Your task to perform on an android device: Go to sound settings Image 0: 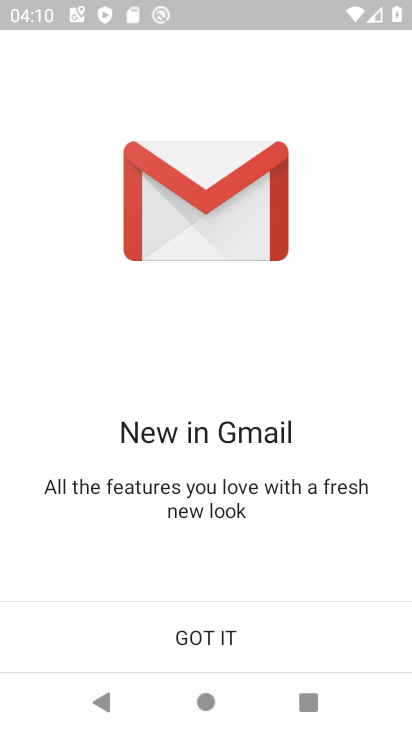
Step 0: press home button
Your task to perform on an android device: Go to sound settings Image 1: 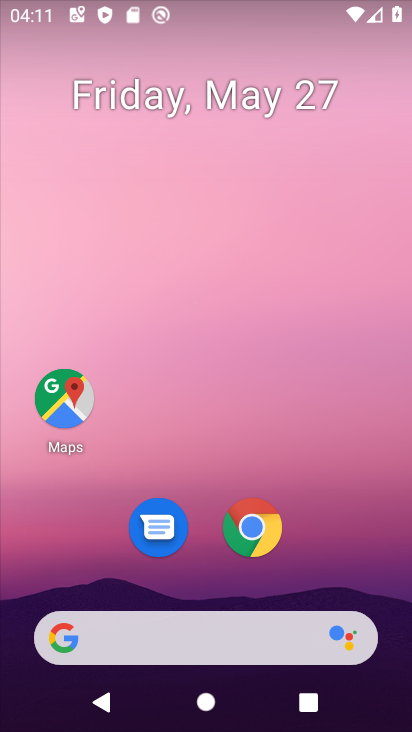
Step 1: drag from (319, 587) to (334, 105)
Your task to perform on an android device: Go to sound settings Image 2: 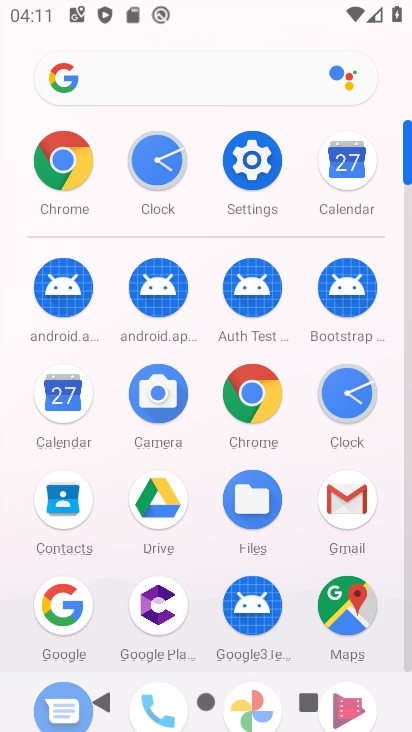
Step 2: click (251, 142)
Your task to perform on an android device: Go to sound settings Image 3: 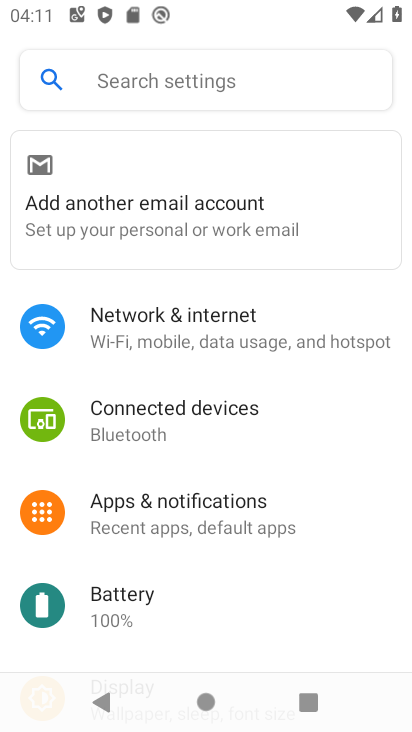
Step 3: drag from (226, 602) to (246, 175)
Your task to perform on an android device: Go to sound settings Image 4: 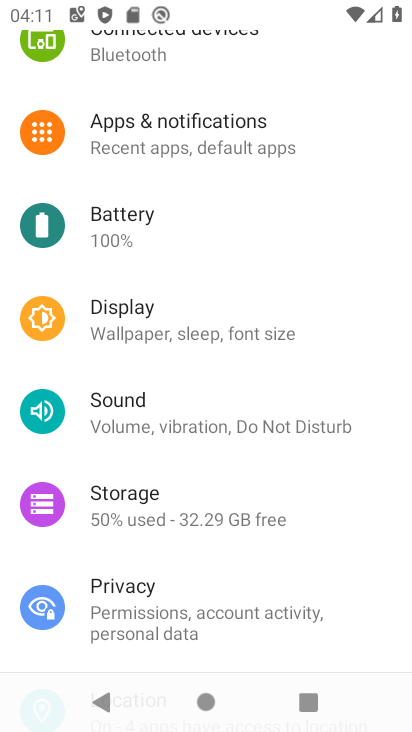
Step 4: click (138, 407)
Your task to perform on an android device: Go to sound settings Image 5: 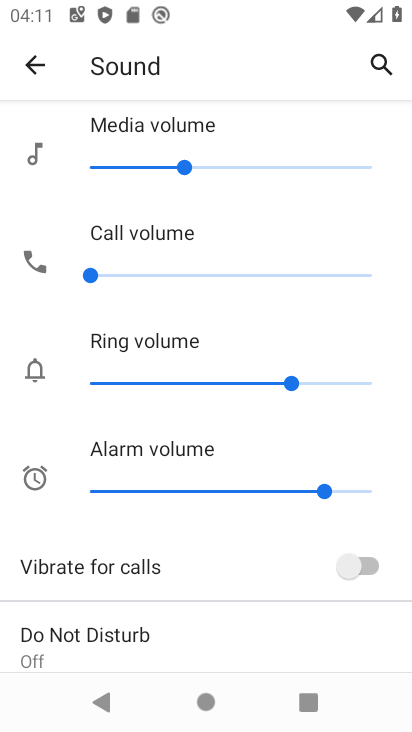
Step 5: task complete